Your task to perform on an android device: toggle priority inbox in the gmail app Image 0: 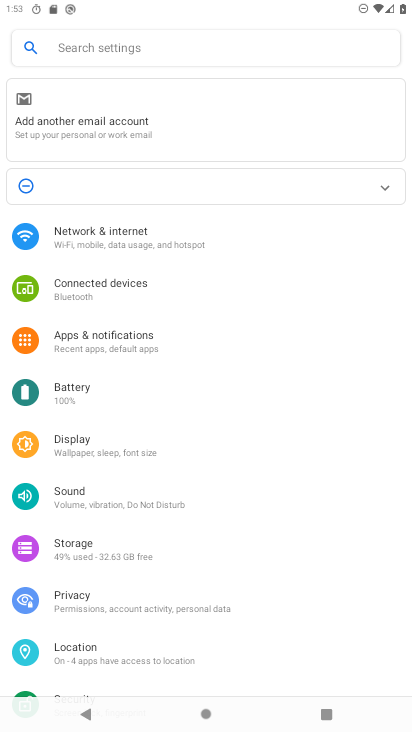
Step 0: press home button
Your task to perform on an android device: toggle priority inbox in the gmail app Image 1: 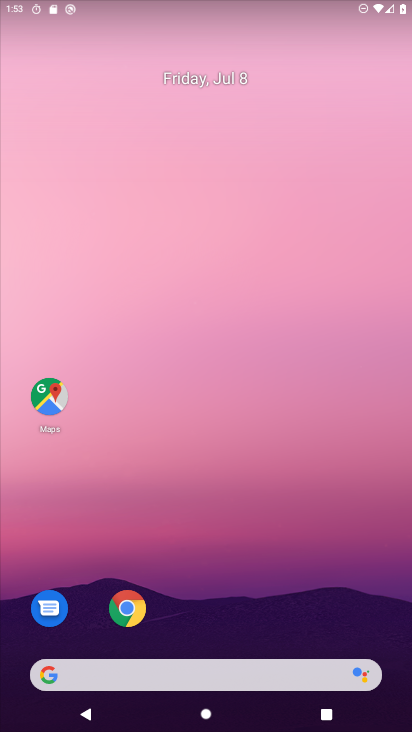
Step 1: drag from (242, 728) to (247, 221)
Your task to perform on an android device: toggle priority inbox in the gmail app Image 2: 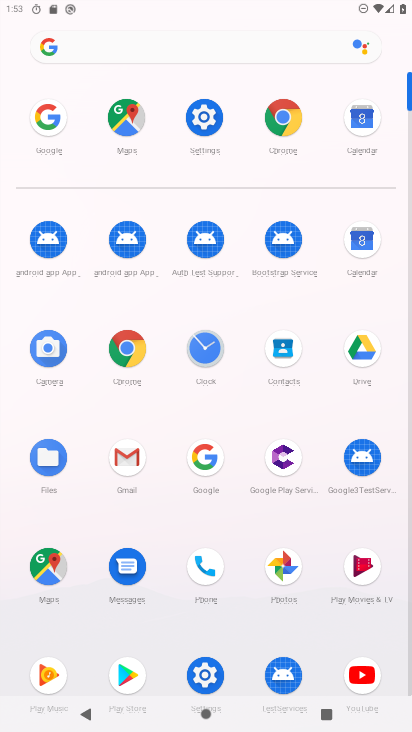
Step 2: click (111, 455)
Your task to perform on an android device: toggle priority inbox in the gmail app Image 3: 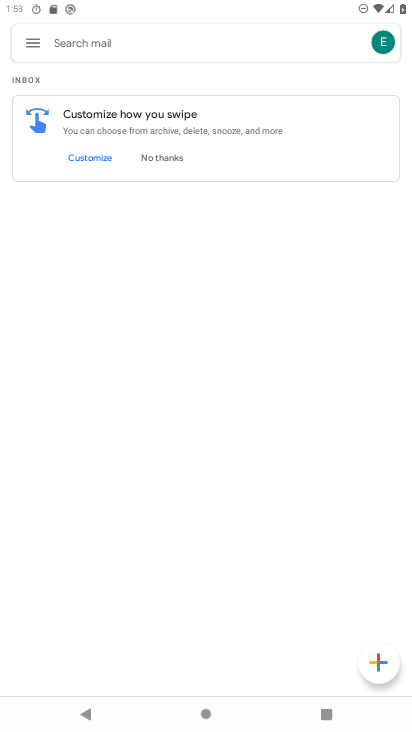
Step 3: click (31, 51)
Your task to perform on an android device: toggle priority inbox in the gmail app Image 4: 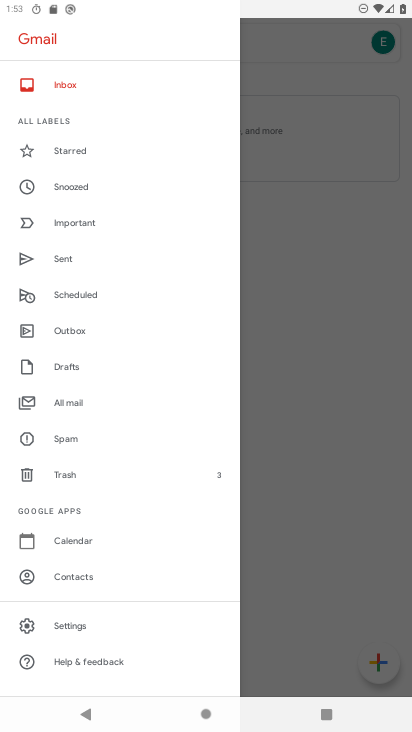
Step 4: click (78, 621)
Your task to perform on an android device: toggle priority inbox in the gmail app Image 5: 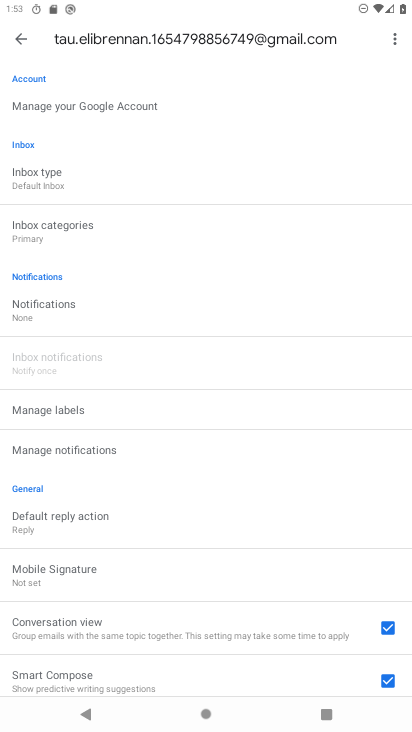
Step 5: task complete